Your task to perform on an android device: turn off javascript in the chrome app Image 0: 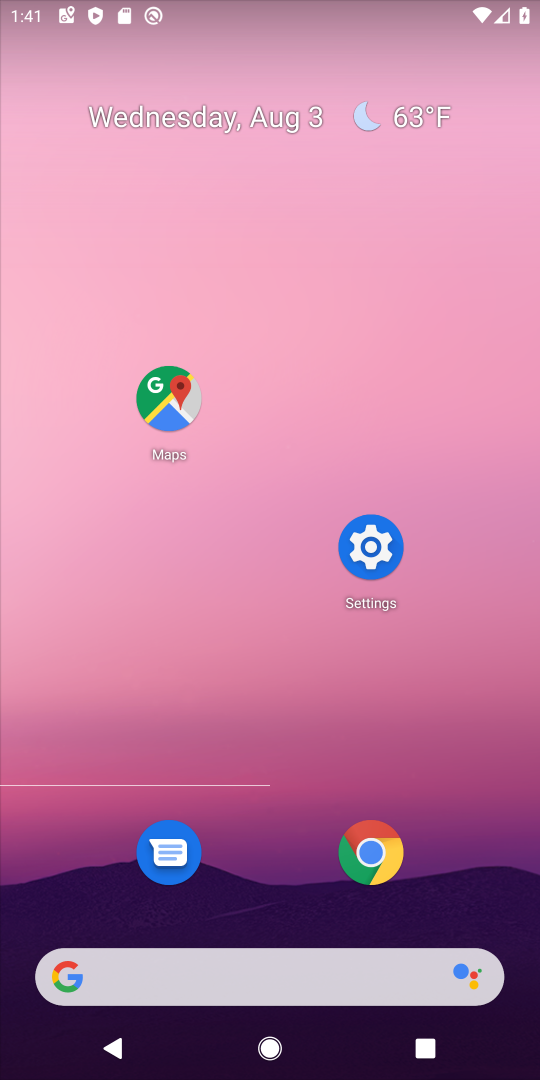
Step 0: press home button
Your task to perform on an android device: turn off javascript in the chrome app Image 1: 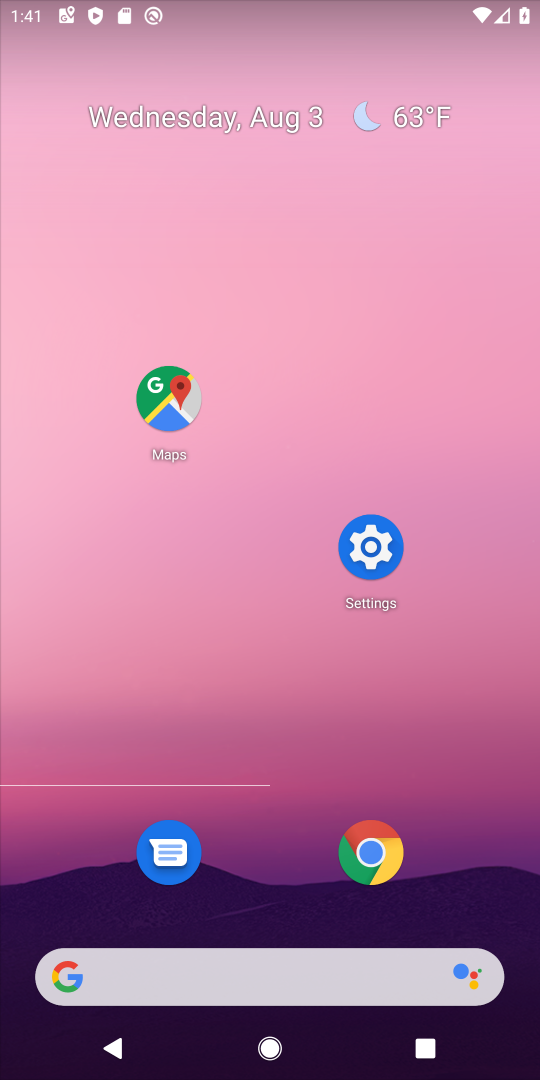
Step 1: click (373, 849)
Your task to perform on an android device: turn off javascript in the chrome app Image 2: 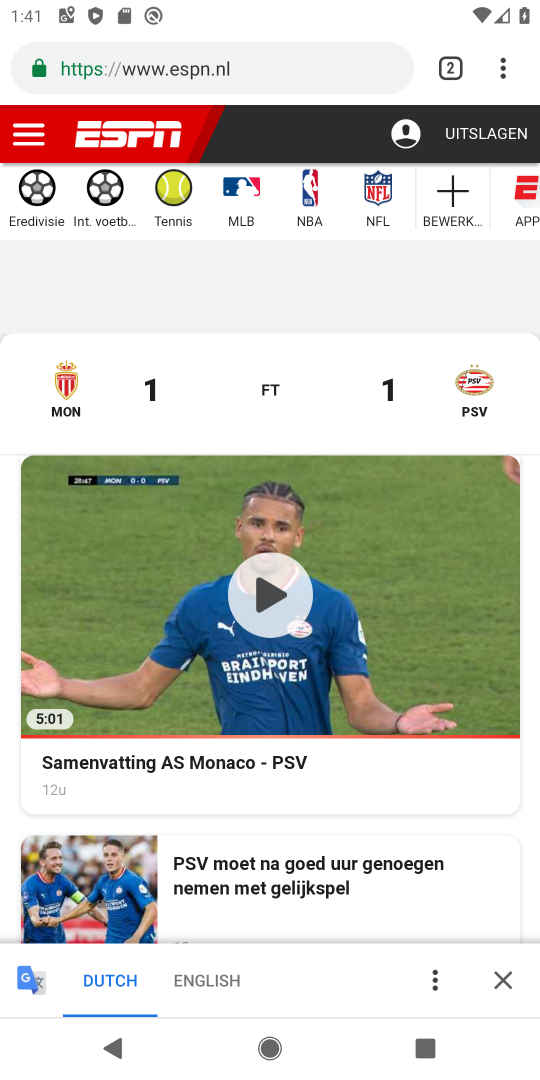
Step 2: drag from (501, 63) to (302, 913)
Your task to perform on an android device: turn off javascript in the chrome app Image 3: 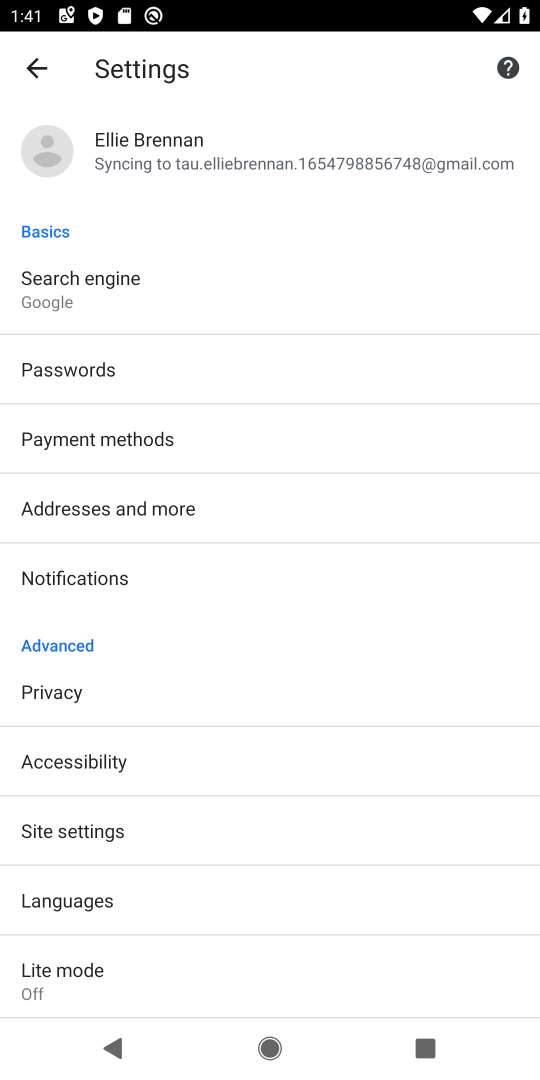
Step 3: drag from (245, 859) to (404, 483)
Your task to perform on an android device: turn off javascript in the chrome app Image 4: 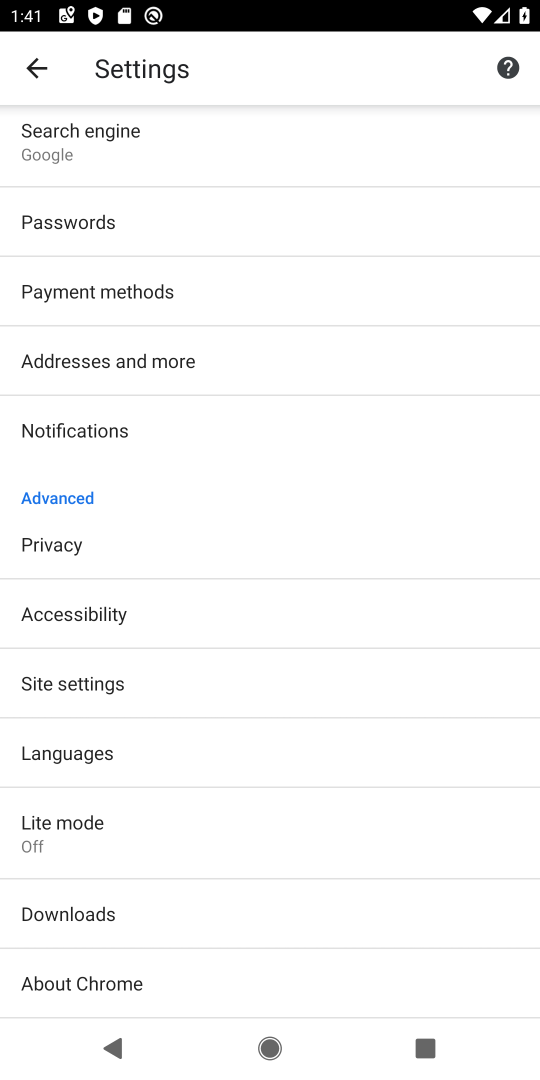
Step 4: click (92, 677)
Your task to perform on an android device: turn off javascript in the chrome app Image 5: 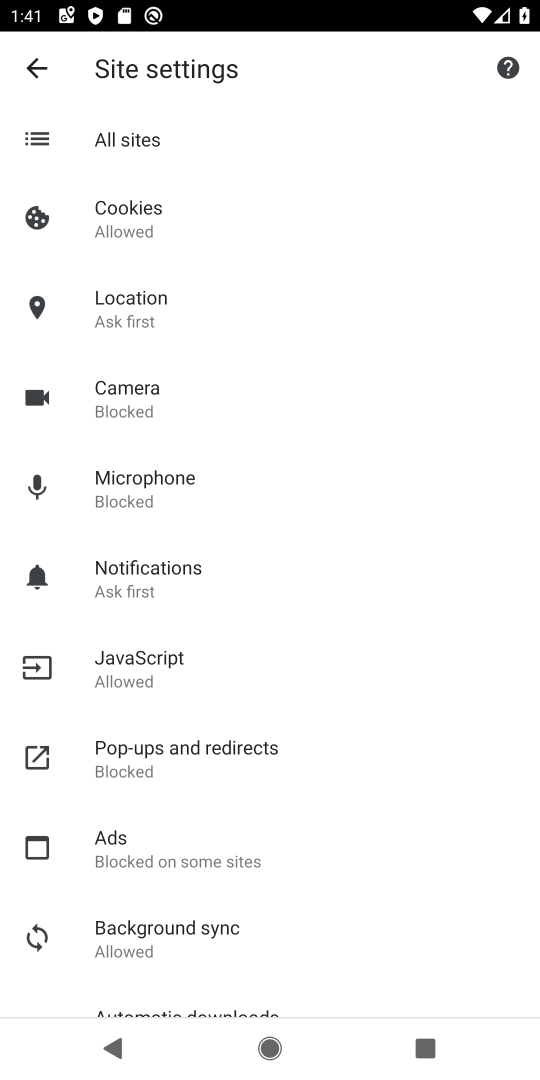
Step 5: click (146, 662)
Your task to perform on an android device: turn off javascript in the chrome app Image 6: 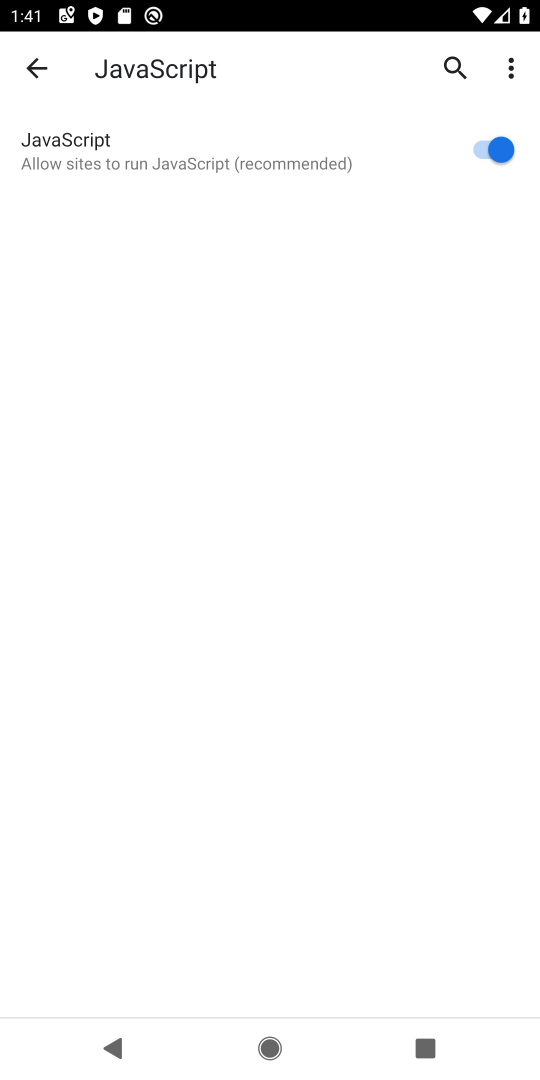
Step 6: click (482, 151)
Your task to perform on an android device: turn off javascript in the chrome app Image 7: 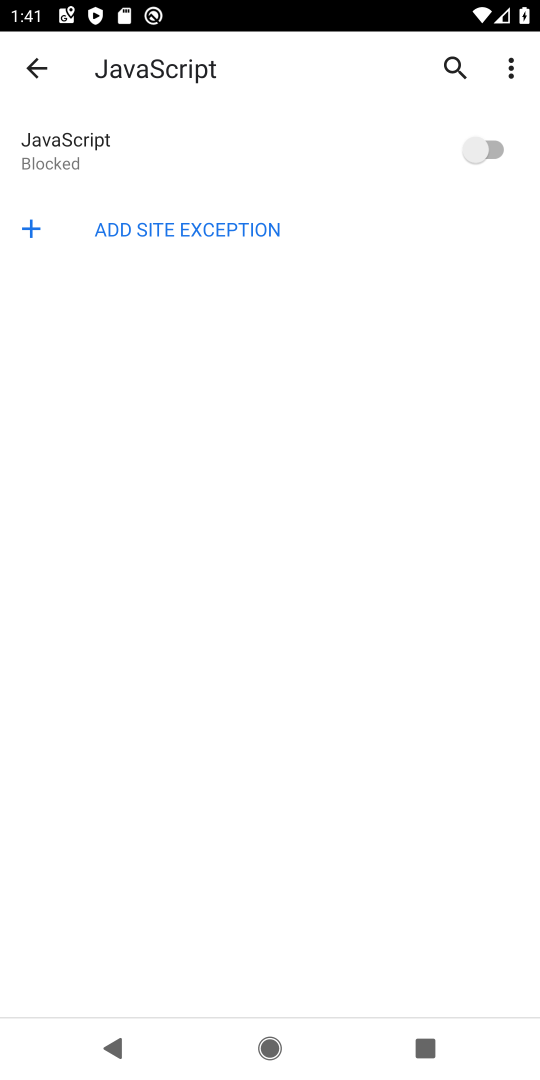
Step 7: task complete